Your task to perform on an android device: Check the settings for the Netflix app Image 0: 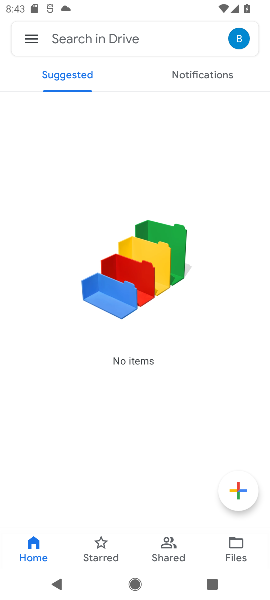
Step 0: press home button
Your task to perform on an android device: Check the settings for the Netflix app Image 1: 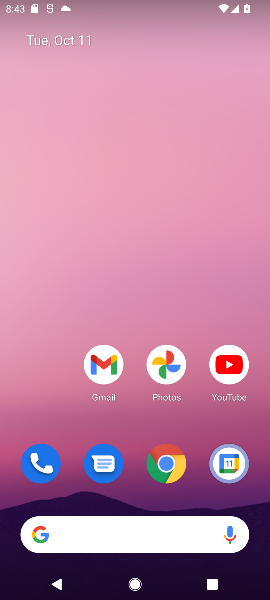
Step 1: drag from (137, 467) to (125, 141)
Your task to perform on an android device: Check the settings for the Netflix app Image 2: 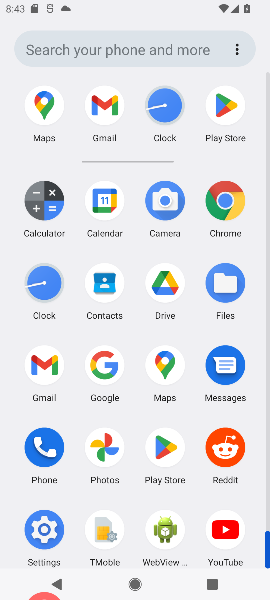
Step 2: click (220, 99)
Your task to perform on an android device: Check the settings for the Netflix app Image 3: 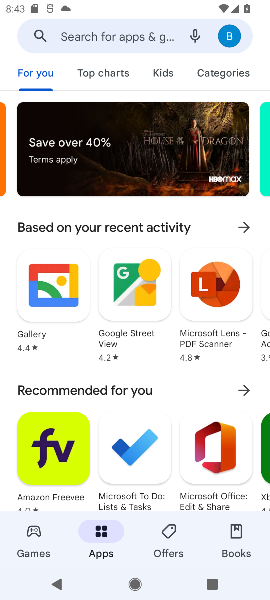
Step 3: click (99, 29)
Your task to perform on an android device: Check the settings for the Netflix app Image 4: 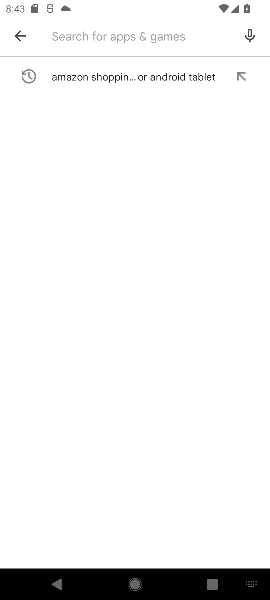
Step 4: type "netfkix "
Your task to perform on an android device: Check the settings for the Netflix app Image 5: 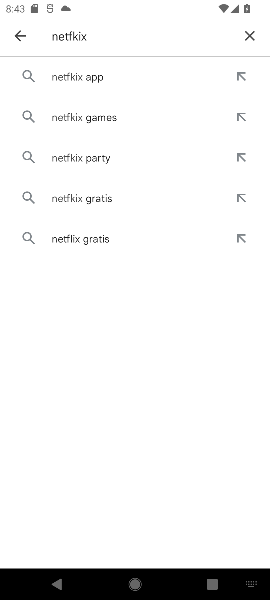
Step 5: click (95, 73)
Your task to perform on an android device: Check the settings for the Netflix app Image 6: 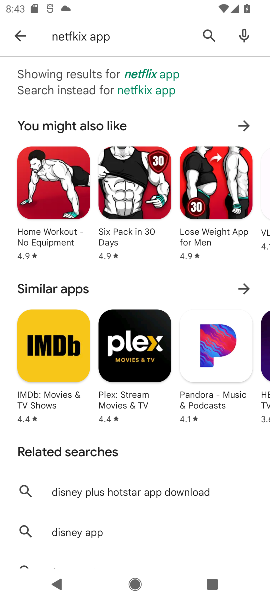
Step 6: drag from (109, 463) to (118, 155)
Your task to perform on an android device: Check the settings for the Netflix app Image 7: 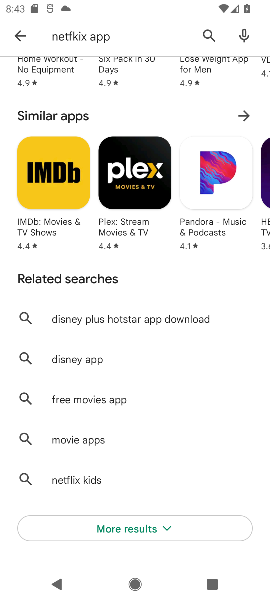
Step 7: drag from (89, 65) to (89, 495)
Your task to perform on an android device: Check the settings for the Netflix app Image 8: 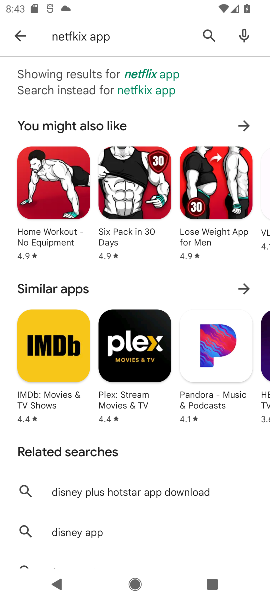
Step 8: click (205, 31)
Your task to perform on an android device: Check the settings for the Netflix app Image 9: 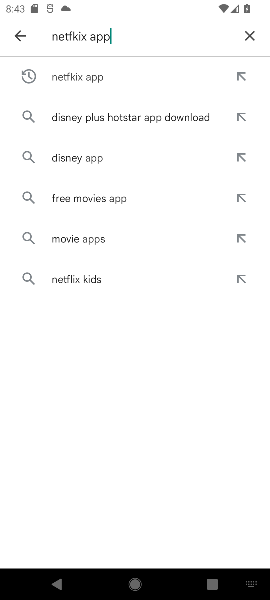
Step 9: click (251, 30)
Your task to perform on an android device: Check the settings for the Netflix app Image 10: 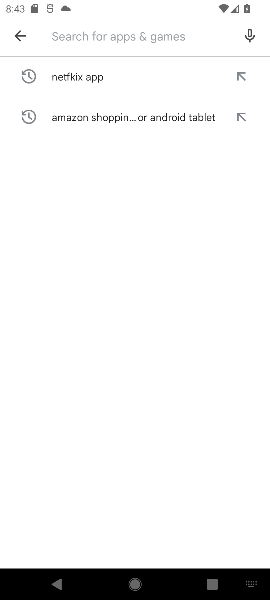
Step 10: click (131, 33)
Your task to perform on an android device: Check the settings for the Netflix app Image 11: 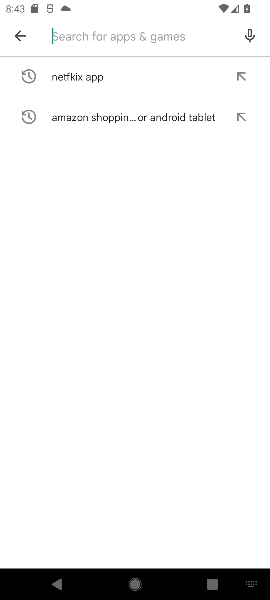
Step 11: type "netflix "
Your task to perform on an android device: Check the settings for the Netflix app Image 12: 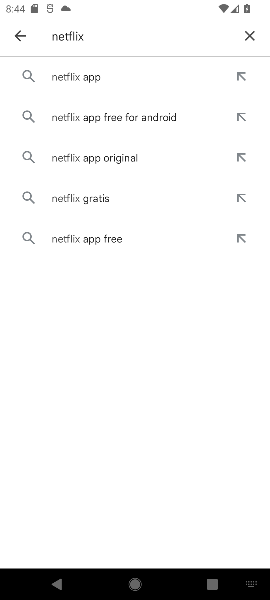
Step 12: click (65, 78)
Your task to perform on an android device: Check the settings for the Netflix app Image 13: 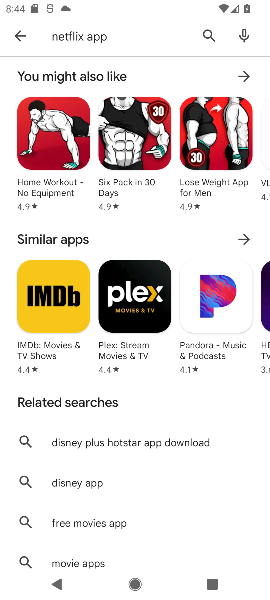
Step 13: drag from (149, 373) to (167, 115)
Your task to perform on an android device: Check the settings for the Netflix app Image 14: 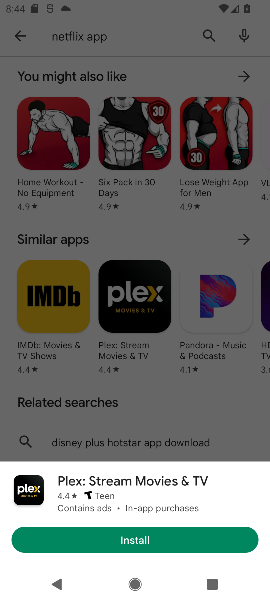
Step 14: click (141, 477)
Your task to perform on an android device: Check the settings for the Netflix app Image 15: 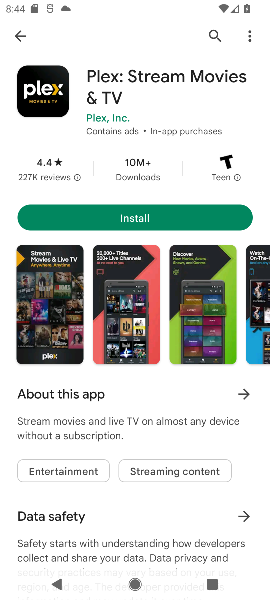
Step 15: task complete